Your task to perform on an android device: toggle notifications settings in the gmail app Image 0: 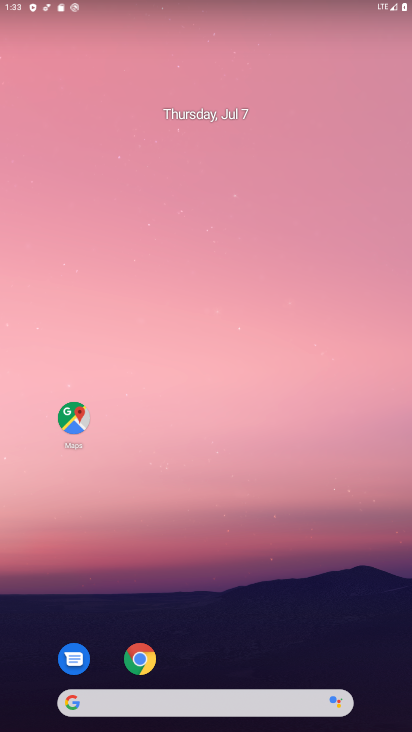
Step 0: drag from (258, 643) to (278, 107)
Your task to perform on an android device: toggle notifications settings in the gmail app Image 1: 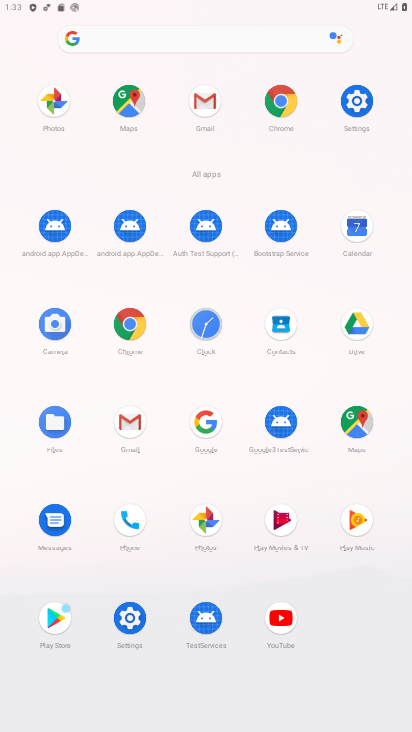
Step 1: click (203, 99)
Your task to perform on an android device: toggle notifications settings in the gmail app Image 2: 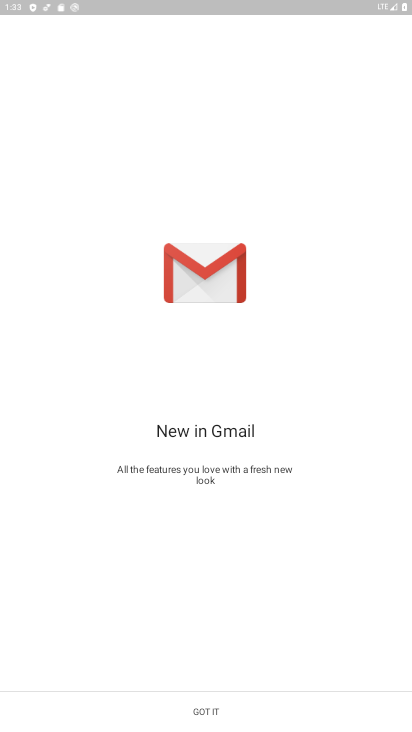
Step 2: click (207, 708)
Your task to perform on an android device: toggle notifications settings in the gmail app Image 3: 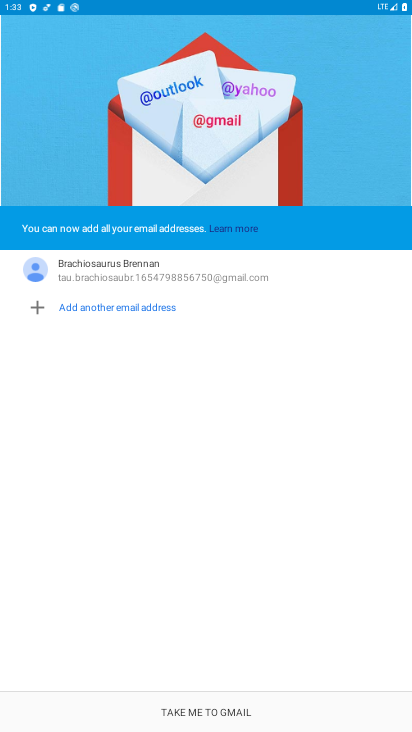
Step 3: click (207, 708)
Your task to perform on an android device: toggle notifications settings in the gmail app Image 4: 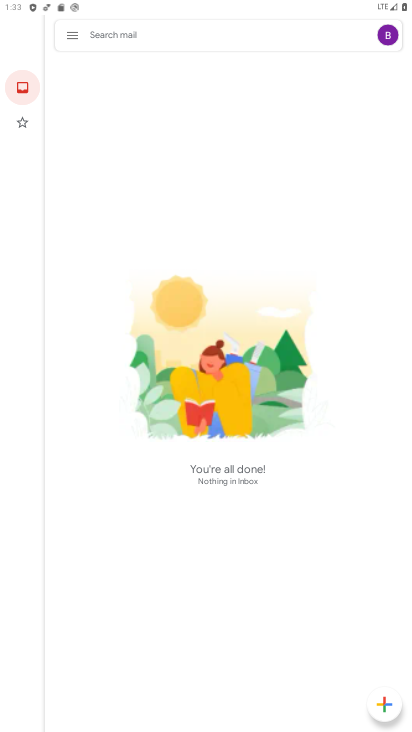
Step 4: click (70, 38)
Your task to perform on an android device: toggle notifications settings in the gmail app Image 5: 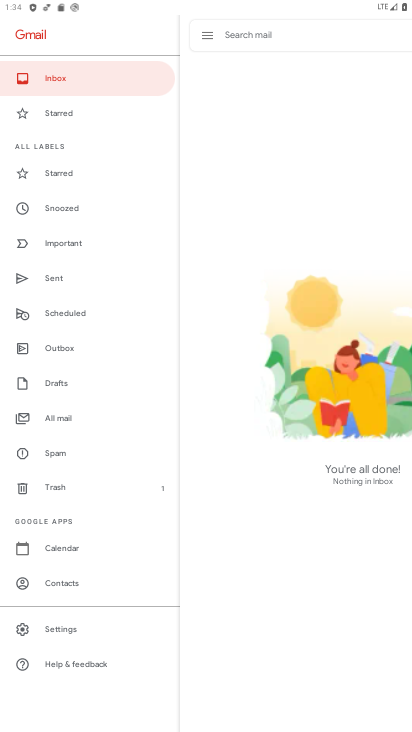
Step 5: click (70, 624)
Your task to perform on an android device: toggle notifications settings in the gmail app Image 6: 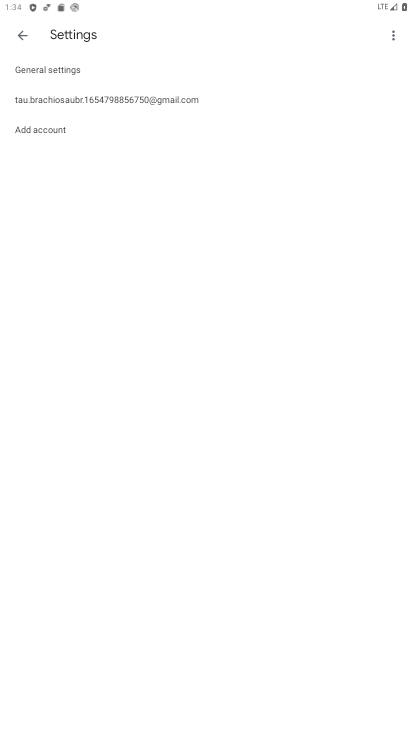
Step 6: click (75, 67)
Your task to perform on an android device: toggle notifications settings in the gmail app Image 7: 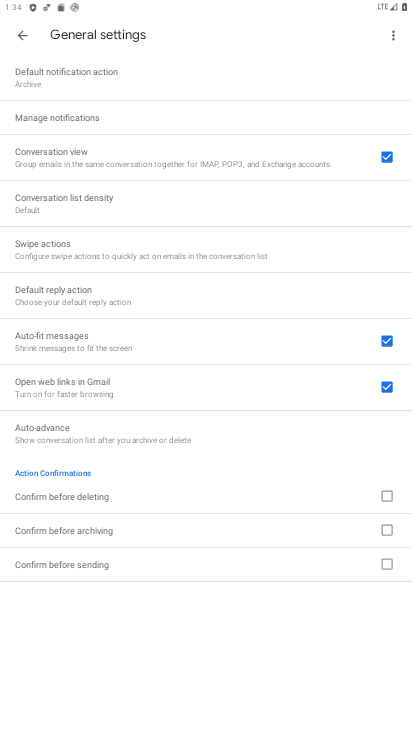
Step 7: click (68, 112)
Your task to perform on an android device: toggle notifications settings in the gmail app Image 8: 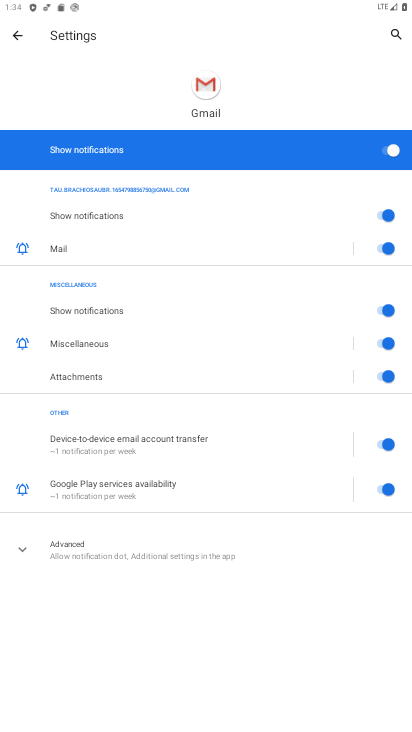
Step 8: click (389, 146)
Your task to perform on an android device: toggle notifications settings in the gmail app Image 9: 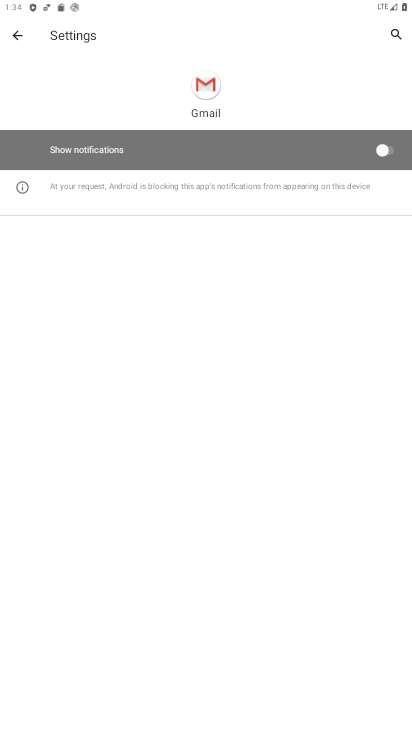
Step 9: task complete